Your task to perform on an android device: delete browsing data in the chrome app Image 0: 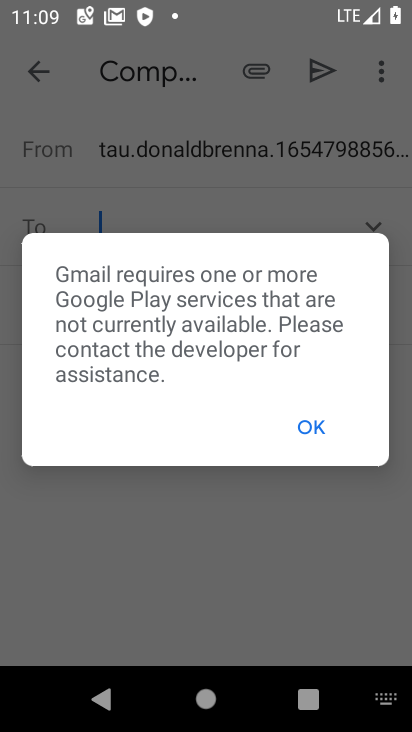
Step 0: press home button
Your task to perform on an android device: delete browsing data in the chrome app Image 1: 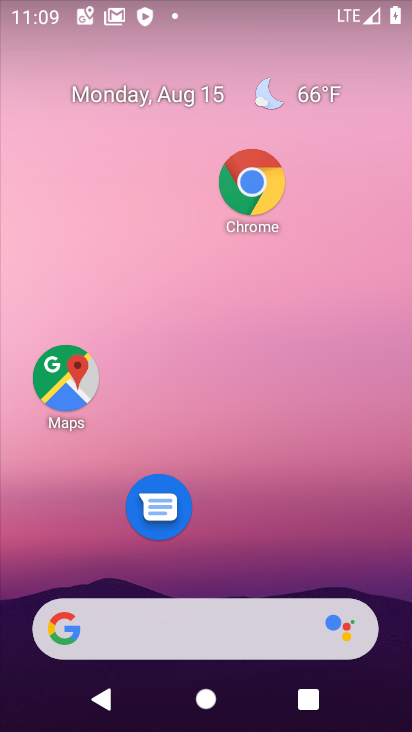
Step 1: click (268, 204)
Your task to perform on an android device: delete browsing data in the chrome app Image 2: 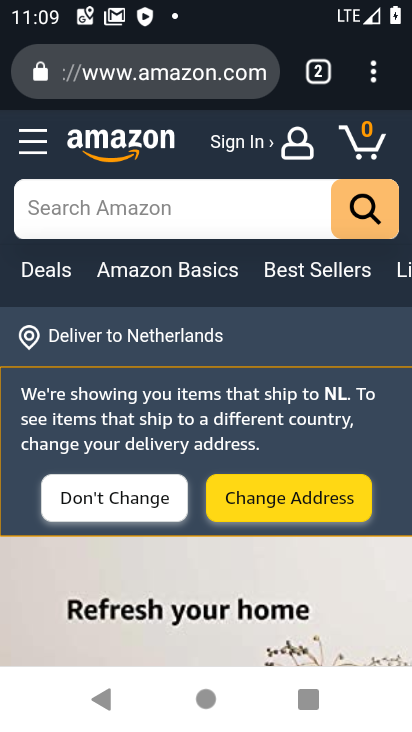
Step 2: click (378, 84)
Your task to perform on an android device: delete browsing data in the chrome app Image 3: 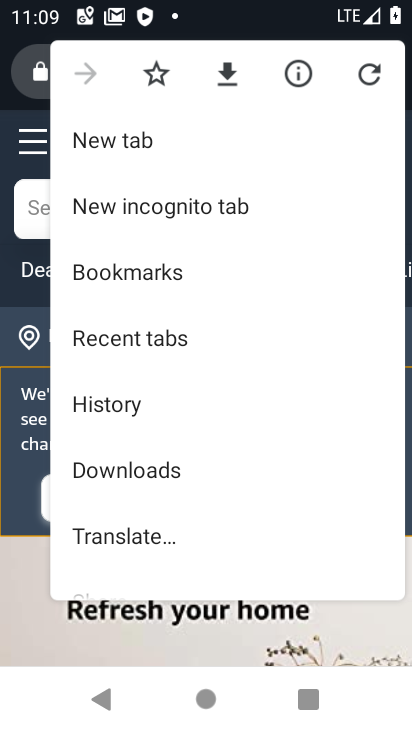
Step 3: drag from (168, 521) to (173, 312)
Your task to perform on an android device: delete browsing data in the chrome app Image 4: 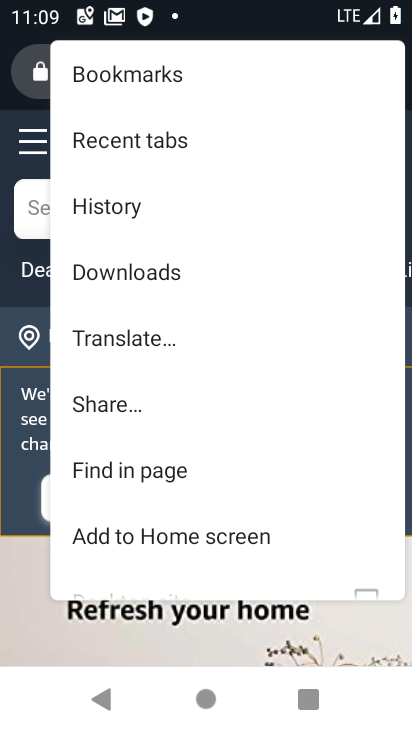
Step 4: drag from (195, 525) to (200, 290)
Your task to perform on an android device: delete browsing data in the chrome app Image 5: 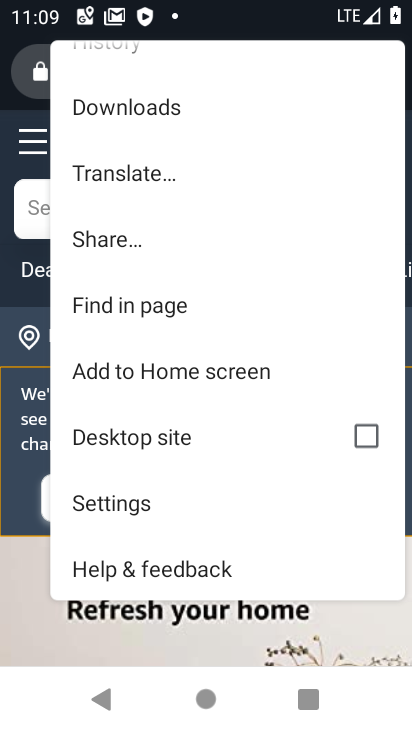
Step 5: drag from (148, 169) to (280, 532)
Your task to perform on an android device: delete browsing data in the chrome app Image 6: 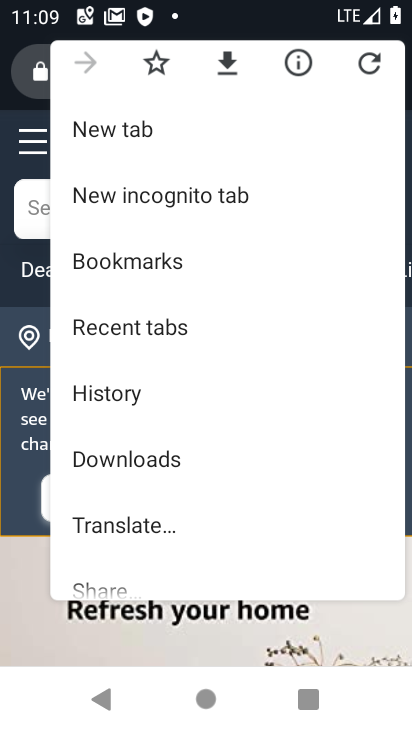
Step 6: click (145, 399)
Your task to perform on an android device: delete browsing data in the chrome app Image 7: 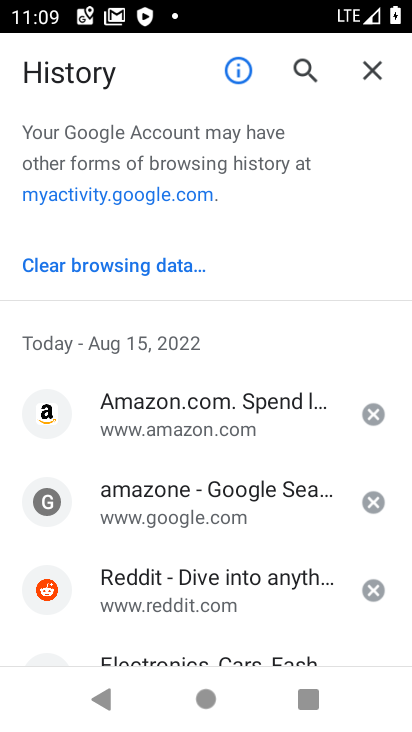
Step 7: click (166, 265)
Your task to perform on an android device: delete browsing data in the chrome app Image 8: 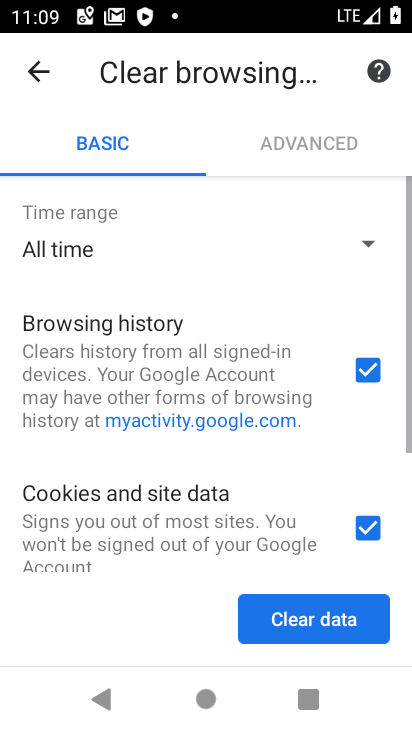
Step 8: click (308, 612)
Your task to perform on an android device: delete browsing data in the chrome app Image 9: 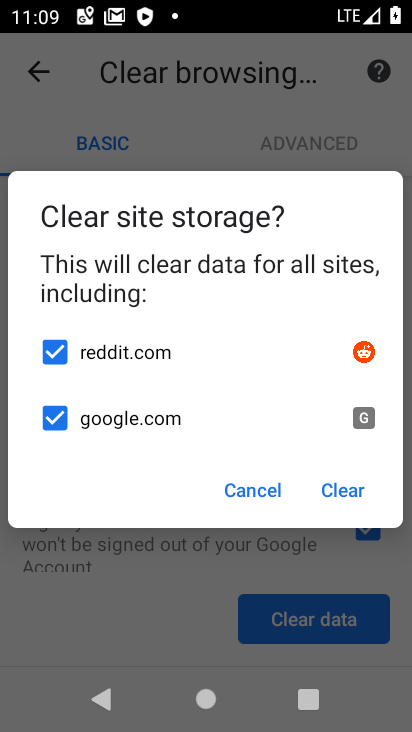
Step 9: click (325, 500)
Your task to perform on an android device: delete browsing data in the chrome app Image 10: 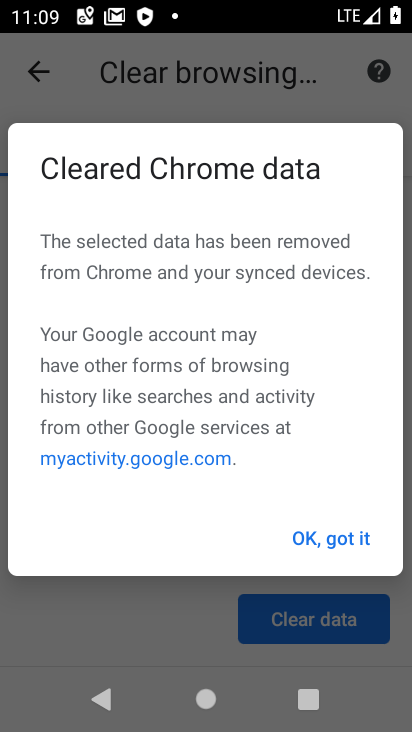
Step 10: task complete